Your task to perform on an android device: open app "Roku - Official Remote Control" Image 0: 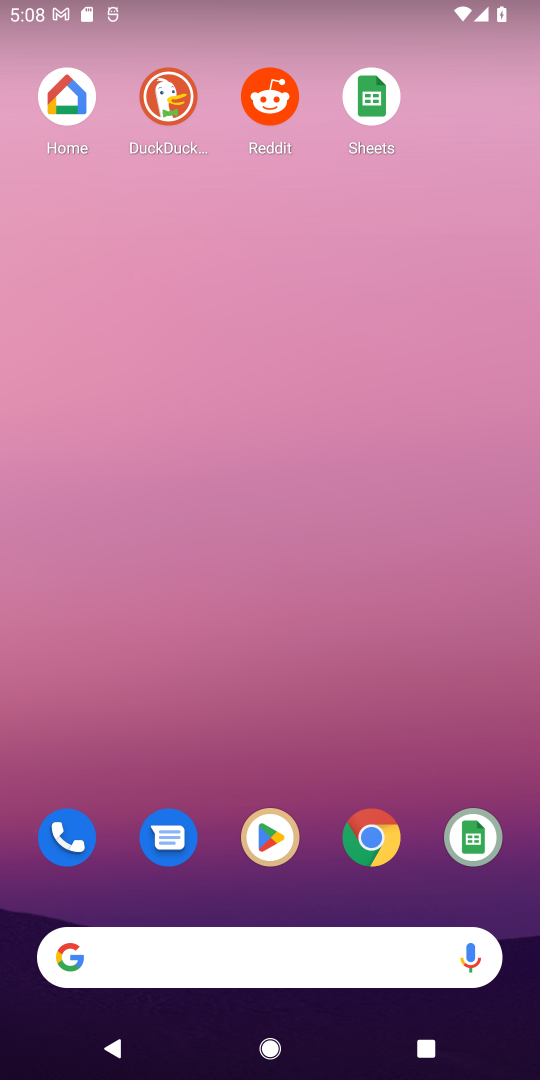
Step 0: press home button
Your task to perform on an android device: open app "Roku - Official Remote Control" Image 1: 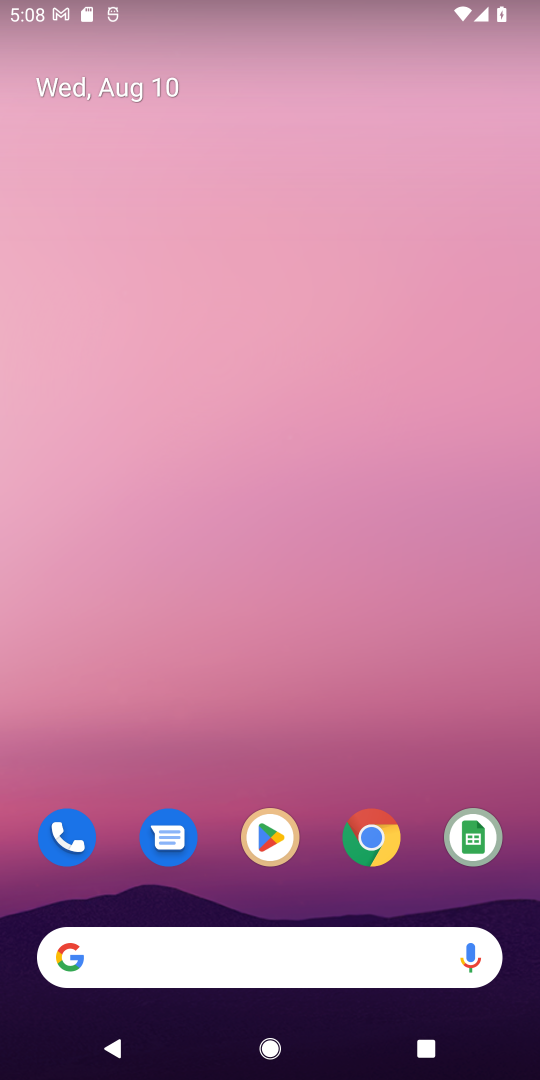
Step 1: click (276, 836)
Your task to perform on an android device: open app "Roku - Official Remote Control" Image 2: 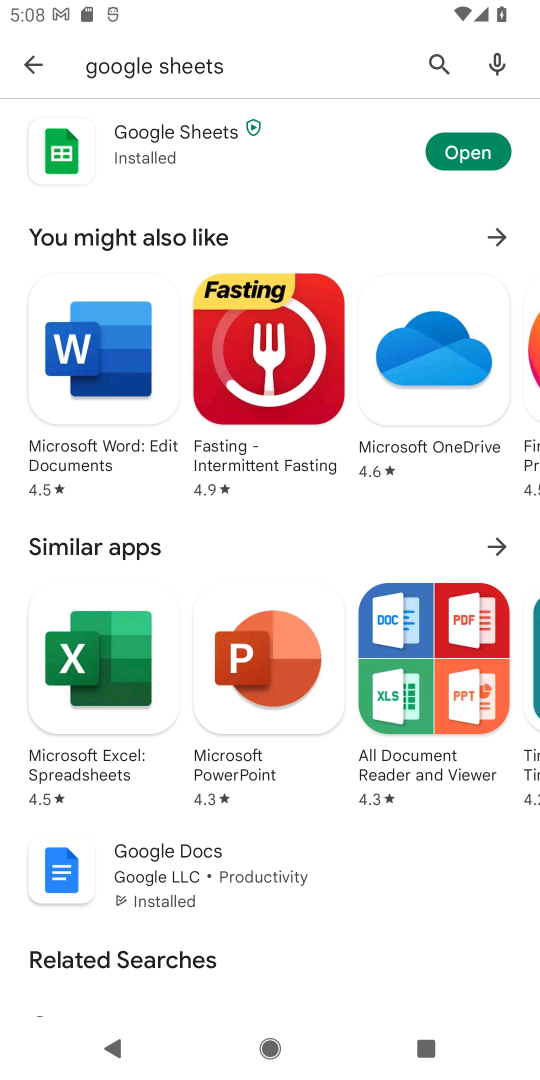
Step 2: click (432, 64)
Your task to perform on an android device: open app "Roku - Official Remote Control" Image 3: 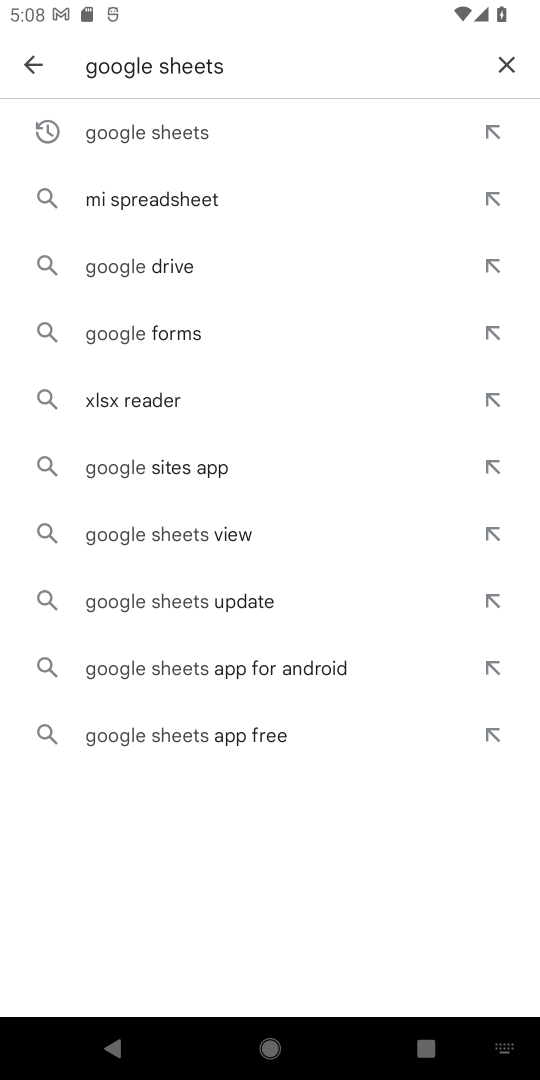
Step 3: click (505, 69)
Your task to perform on an android device: open app "Roku - Official Remote Control" Image 4: 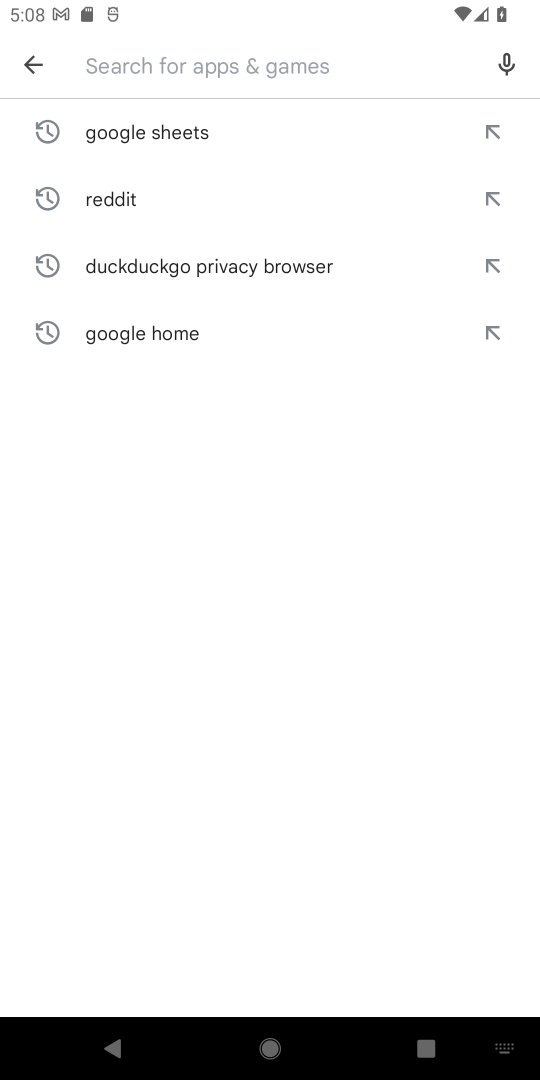
Step 4: type "Roku - Official Remote Control"
Your task to perform on an android device: open app "Roku - Official Remote Control" Image 5: 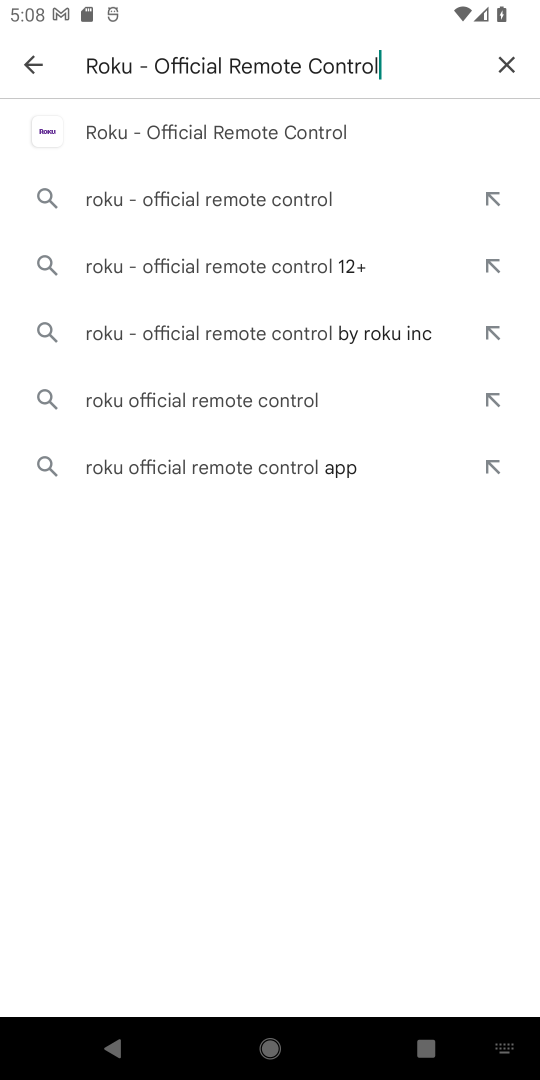
Step 5: click (210, 142)
Your task to perform on an android device: open app "Roku - Official Remote Control" Image 6: 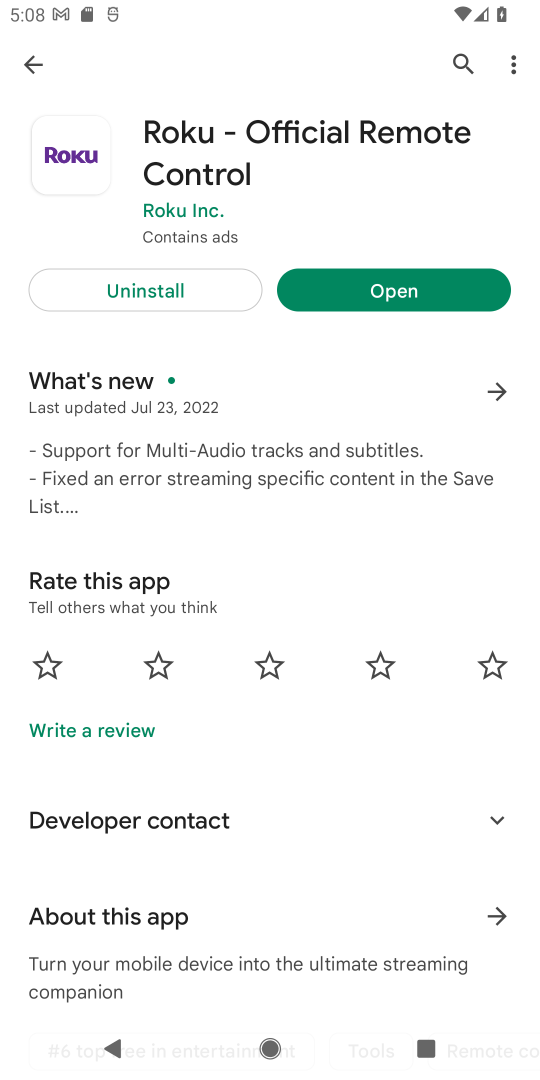
Step 6: click (424, 283)
Your task to perform on an android device: open app "Roku - Official Remote Control" Image 7: 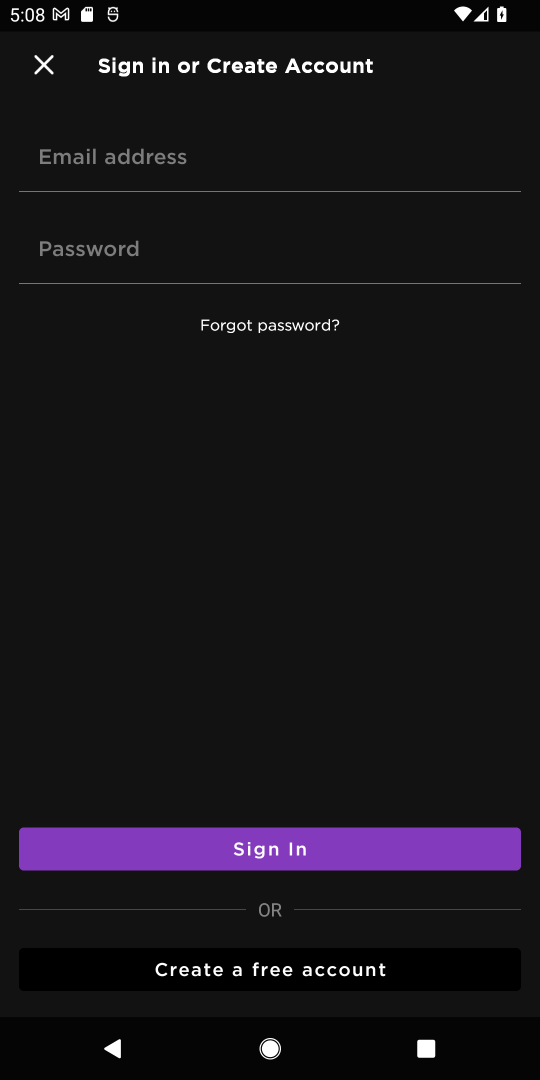
Step 7: task complete